Your task to perform on an android device: Open eBay Image 0: 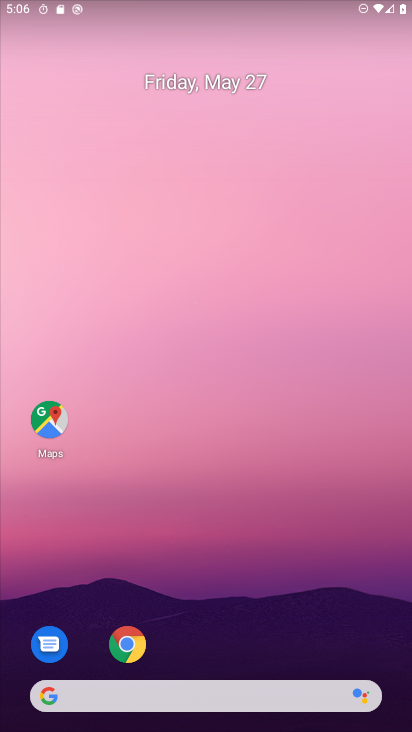
Step 0: click (124, 644)
Your task to perform on an android device: Open eBay Image 1: 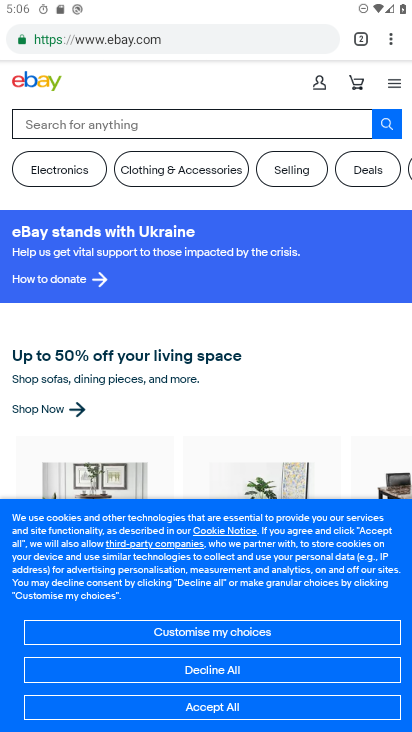
Step 1: task complete